Your task to perform on an android device: install app "Google Calendar" Image 0: 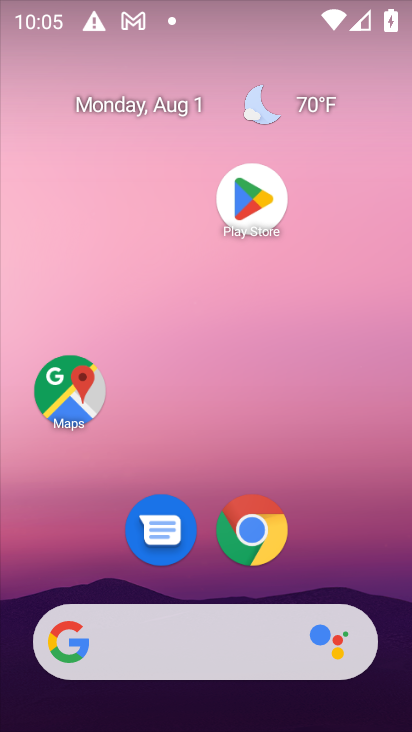
Step 0: drag from (183, 722) to (189, 0)
Your task to perform on an android device: install app "Google Calendar" Image 1: 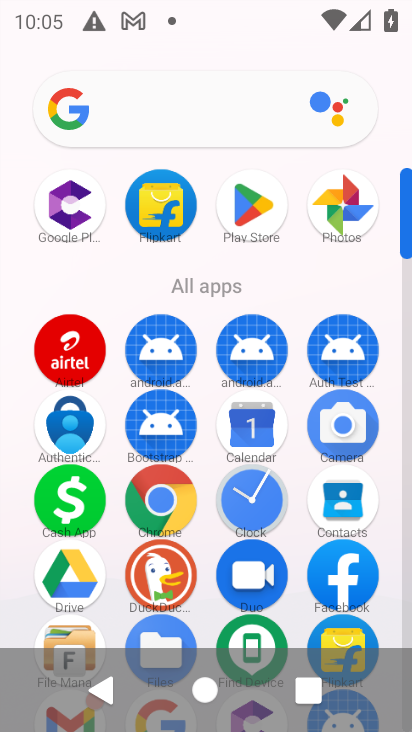
Step 1: click (267, 203)
Your task to perform on an android device: install app "Google Calendar" Image 2: 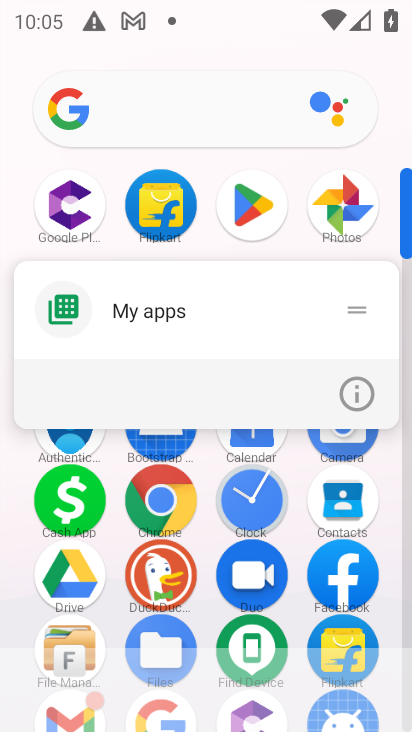
Step 2: click (267, 203)
Your task to perform on an android device: install app "Google Calendar" Image 3: 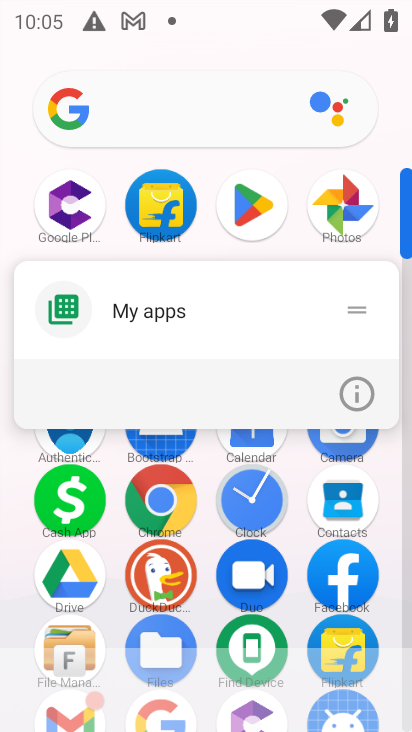
Step 3: click (251, 206)
Your task to perform on an android device: install app "Google Calendar" Image 4: 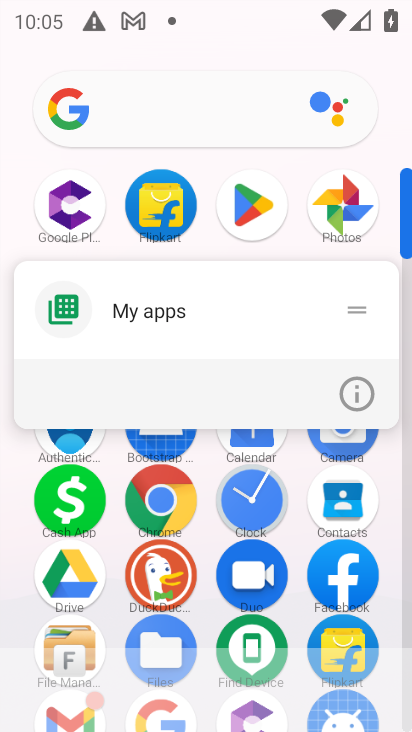
Step 4: click (258, 235)
Your task to perform on an android device: install app "Google Calendar" Image 5: 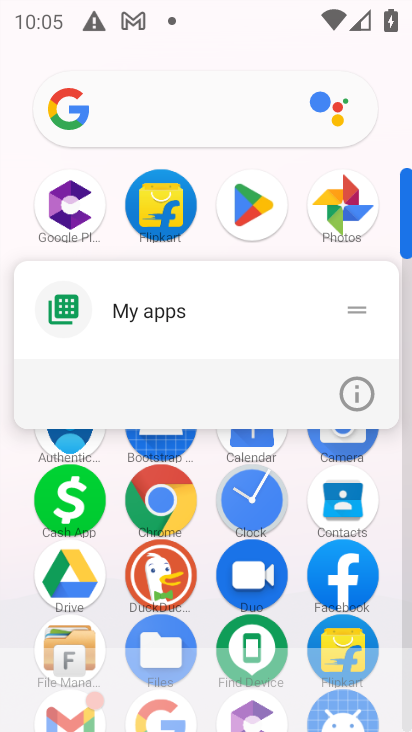
Step 5: click (222, 201)
Your task to perform on an android device: install app "Google Calendar" Image 6: 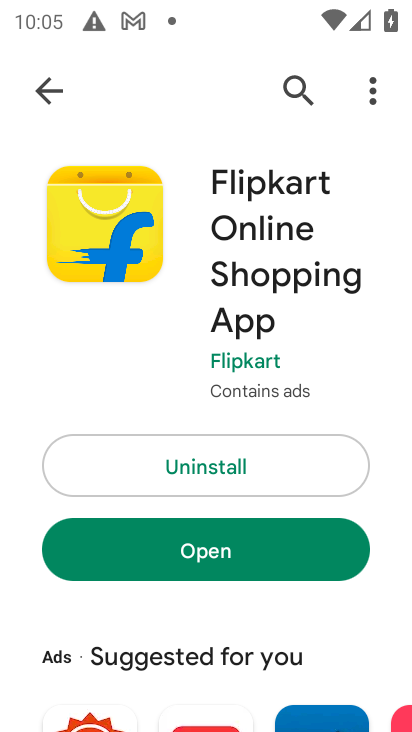
Step 6: click (303, 89)
Your task to perform on an android device: install app "Google Calendar" Image 7: 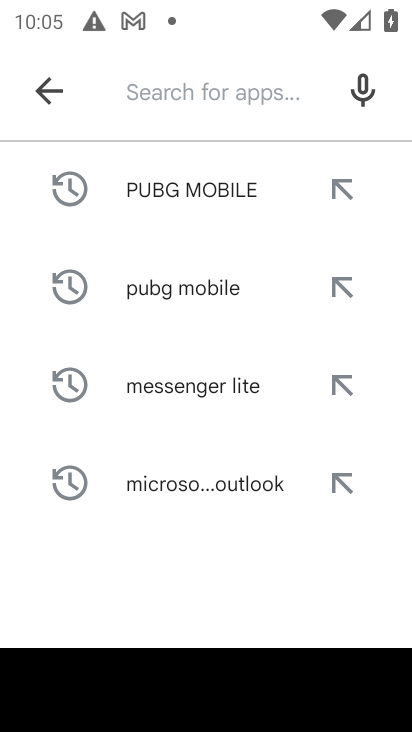
Step 7: type "Google Calendar"
Your task to perform on an android device: install app "Google Calendar" Image 8: 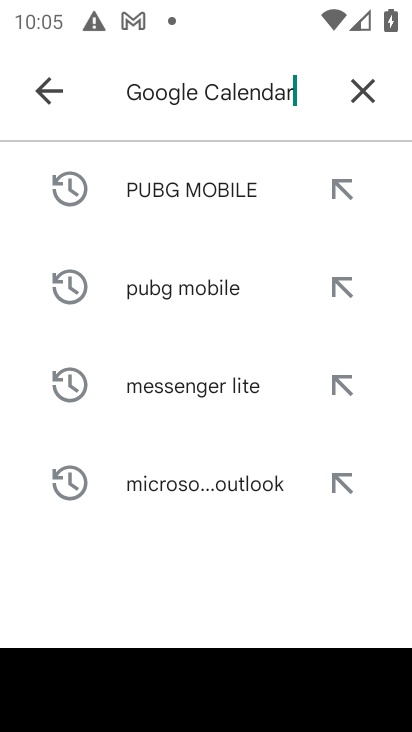
Step 8: type ""
Your task to perform on an android device: install app "Google Calendar" Image 9: 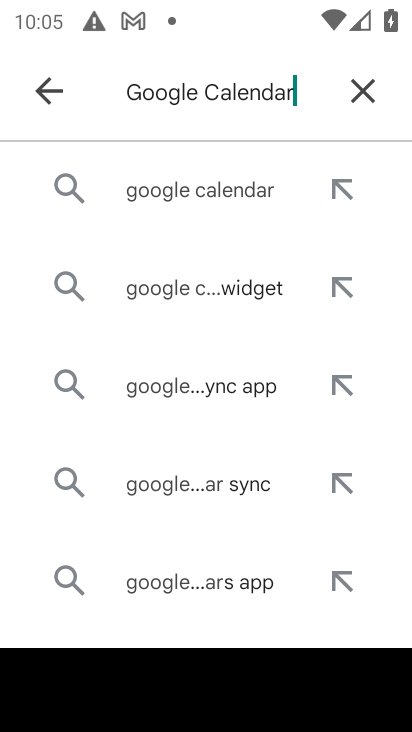
Step 9: click (253, 188)
Your task to perform on an android device: install app "Google Calendar" Image 10: 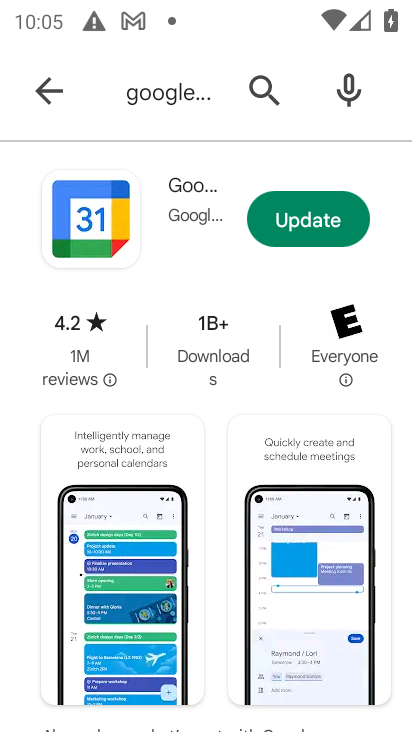
Step 10: click (340, 220)
Your task to perform on an android device: install app "Google Calendar" Image 11: 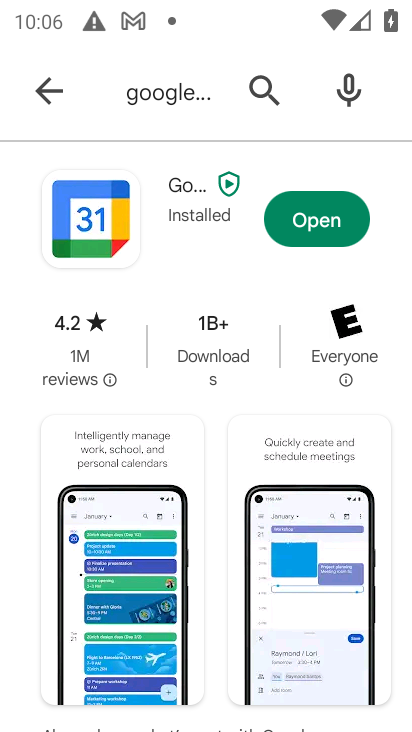
Step 11: task complete